Your task to perform on an android device: What's on my calendar tomorrow? Image 0: 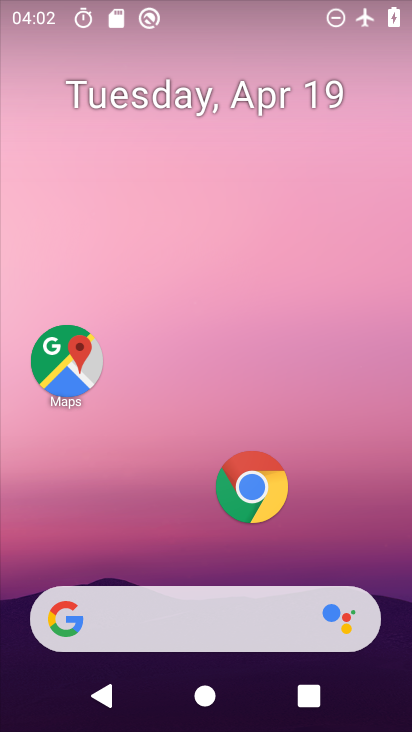
Step 0: drag from (158, 451) to (269, 19)
Your task to perform on an android device: What's on my calendar tomorrow? Image 1: 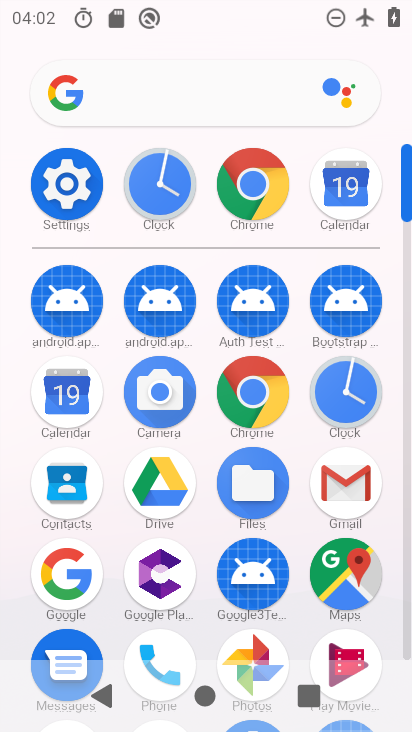
Step 1: click (71, 396)
Your task to perform on an android device: What's on my calendar tomorrow? Image 2: 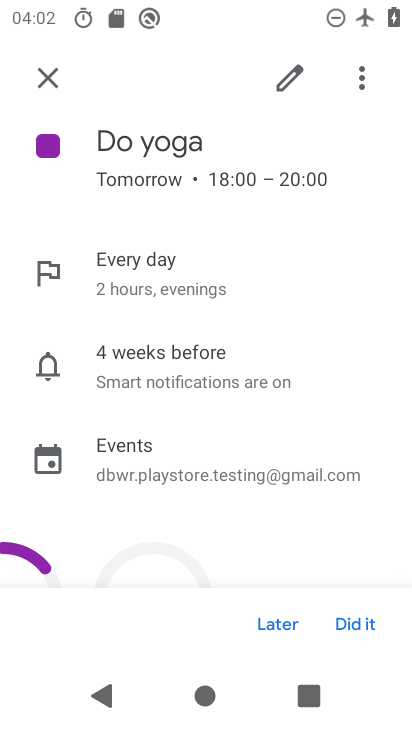
Step 2: click (45, 73)
Your task to perform on an android device: What's on my calendar tomorrow? Image 3: 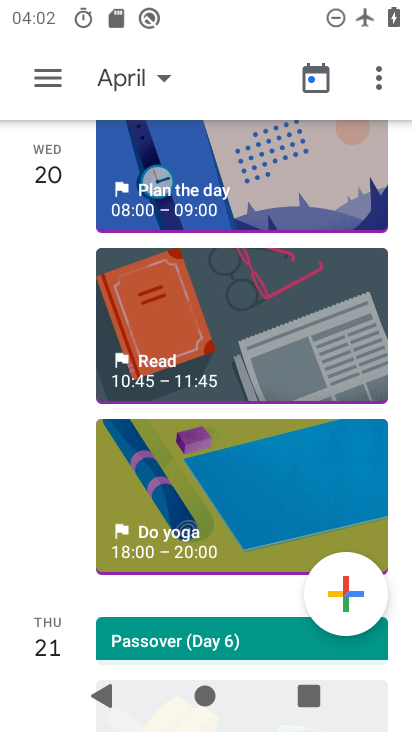
Step 3: click (201, 497)
Your task to perform on an android device: What's on my calendar tomorrow? Image 4: 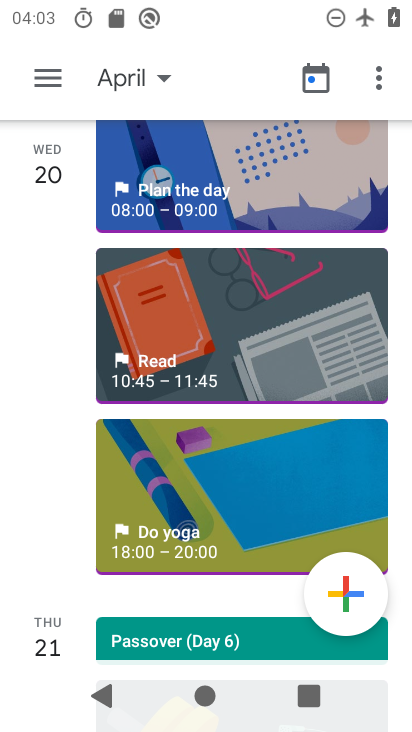
Step 4: click (128, 481)
Your task to perform on an android device: What's on my calendar tomorrow? Image 5: 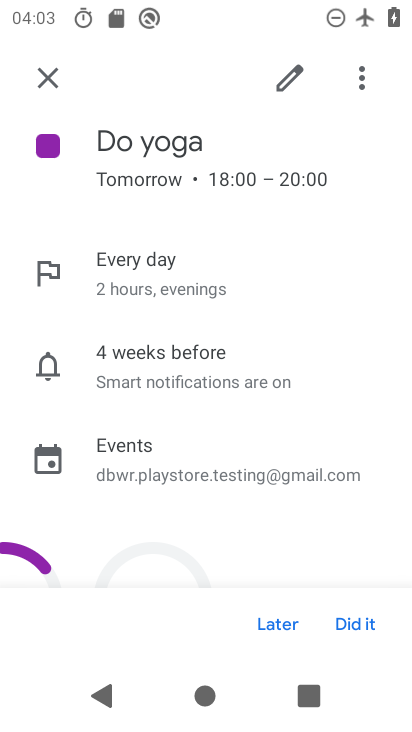
Step 5: task complete